Your task to perform on an android device: see tabs open on other devices in the chrome app Image 0: 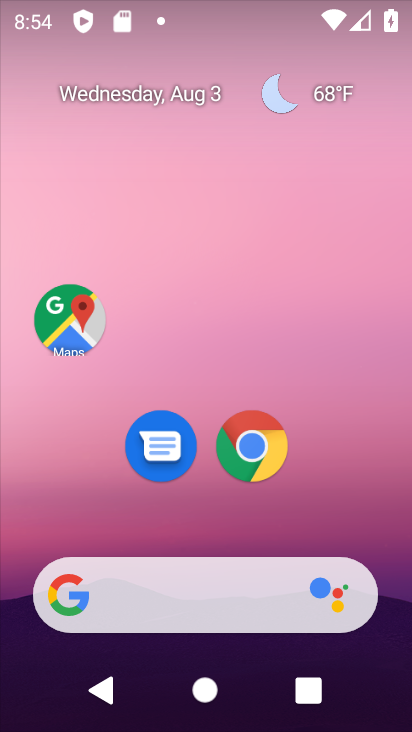
Step 0: click (247, 441)
Your task to perform on an android device: see tabs open on other devices in the chrome app Image 1: 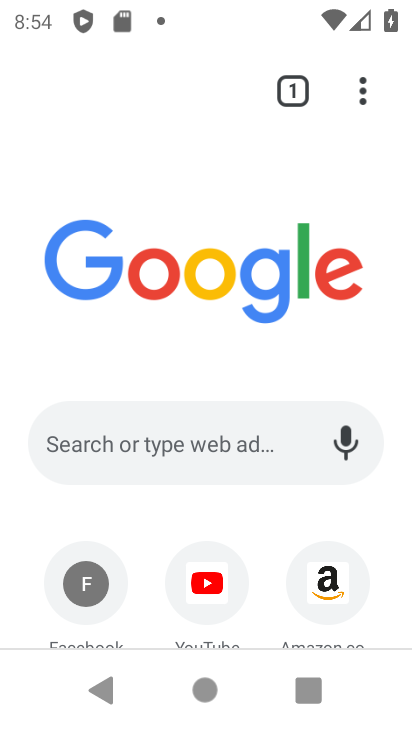
Step 1: click (362, 88)
Your task to perform on an android device: see tabs open on other devices in the chrome app Image 2: 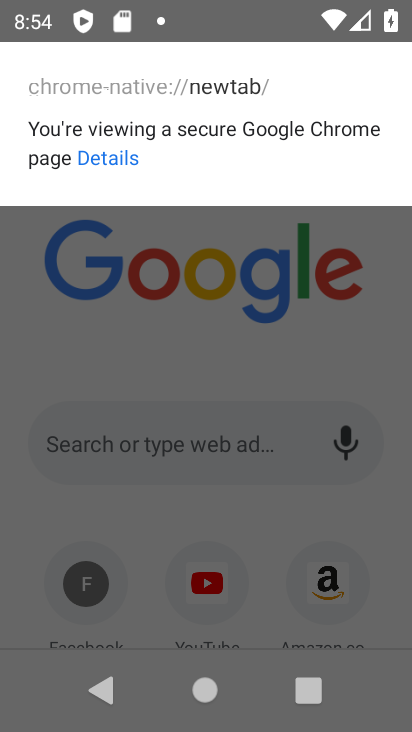
Step 2: press back button
Your task to perform on an android device: see tabs open on other devices in the chrome app Image 3: 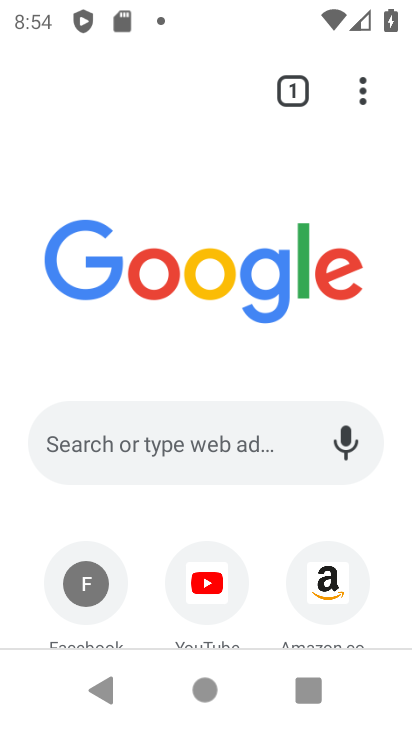
Step 3: click (363, 92)
Your task to perform on an android device: see tabs open on other devices in the chrome app Image 4: 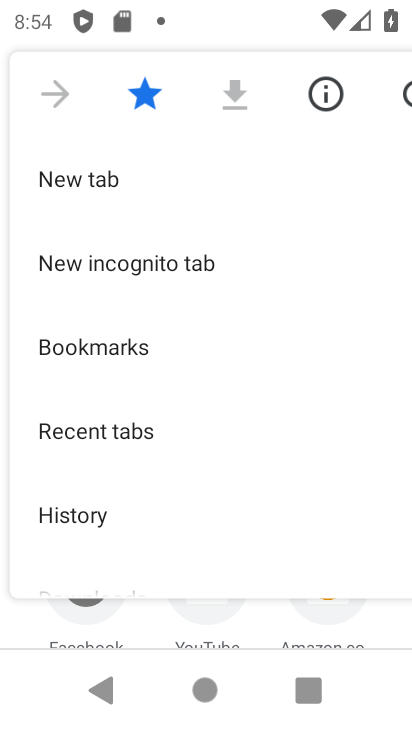
Step 4: click (70, 434)
Your task to perform on an android device: see tabs open on other devices in the chrome app Image 5: 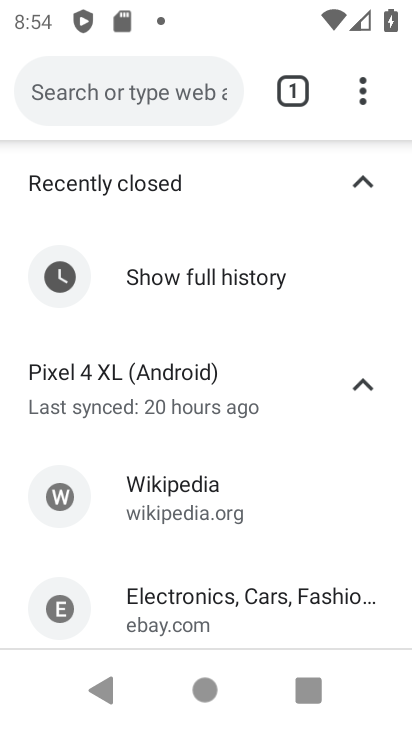
Step 5: task complete